Your task to perform on an android device: delete a single message in the gmail app Image 0: 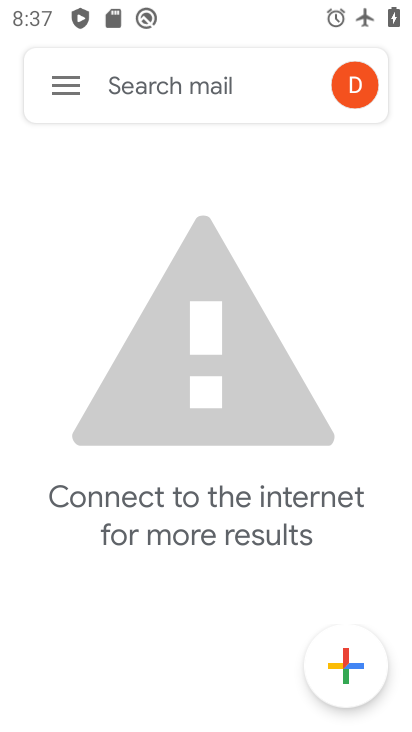
Step 0: click (66, 72)
Your task to perform on an android device: delete a single message in the gmail app Image 1: 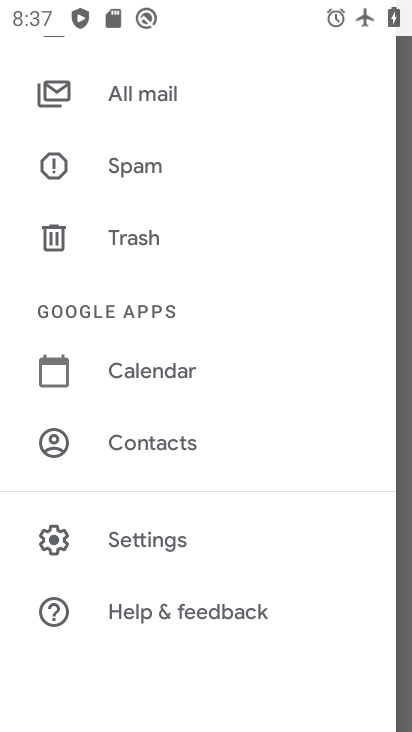
Step 1: click (166, 103)
Your task to perform on an android device: delete a single message in the gmail app Image 2: 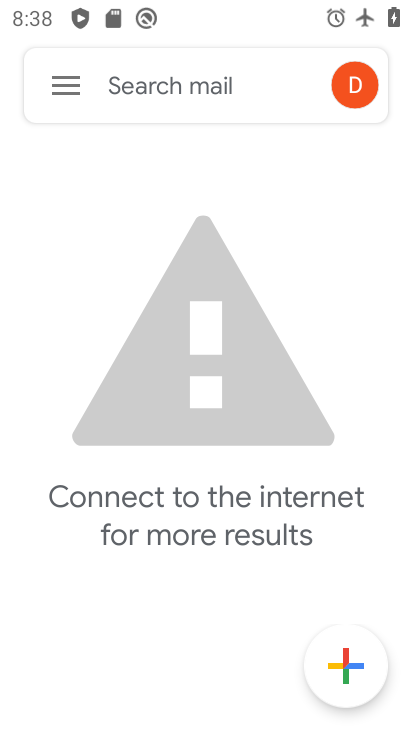
Step 2: task complete